Your task to perform on an android device: When is my next meeting? Image 0: 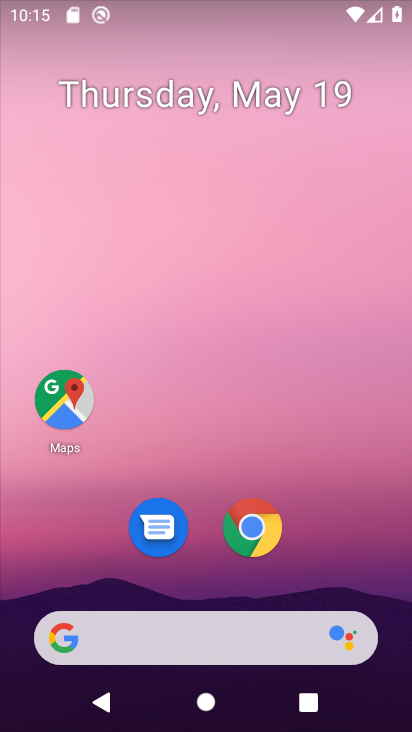
Step 0: drag from (381, 591) to (273, 66)
Your task to perform on an android device: When is my next meeting? Image 1: 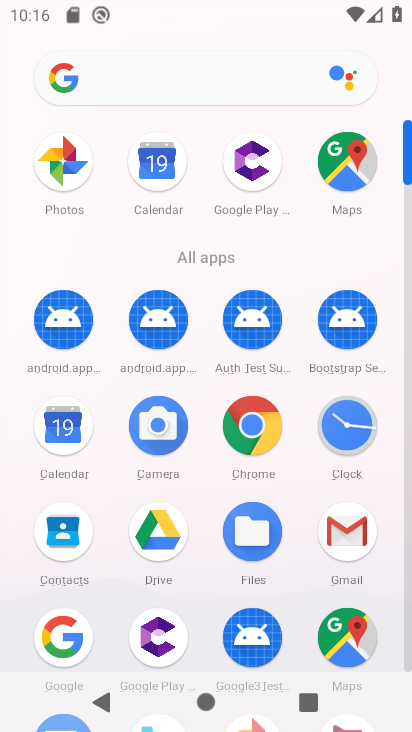
Step 1: click (61, 431)
Your task to perform on an android device: When is my next meeting? Image 2: 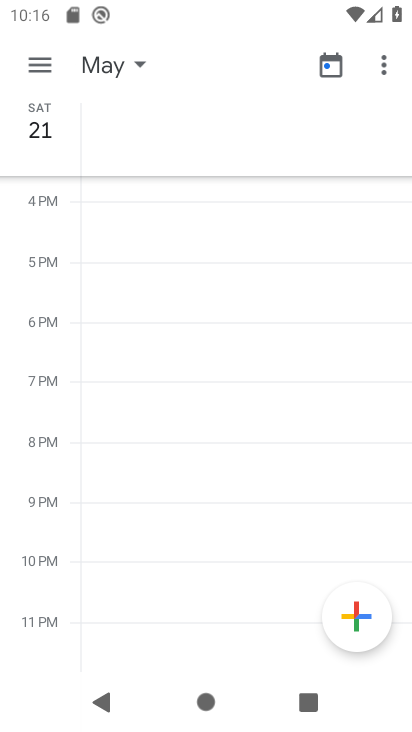
Step 2: click (110, 76)
Your task to perform on an android device: When is my next meeting? Image 3: 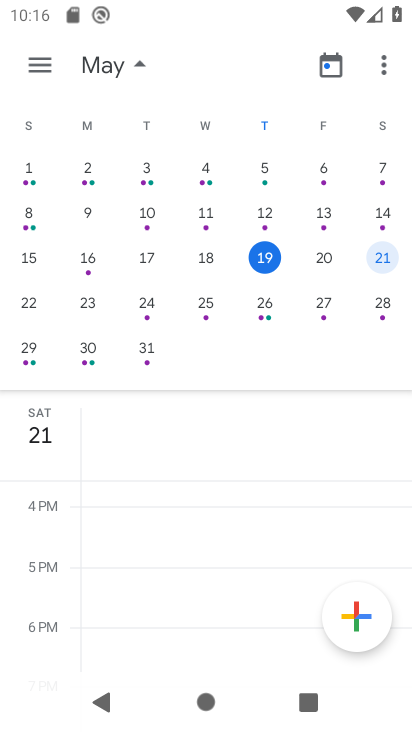
Step 3: click (324, 256)
Your task to perform on an android device: When is my next meeting? Image 4: 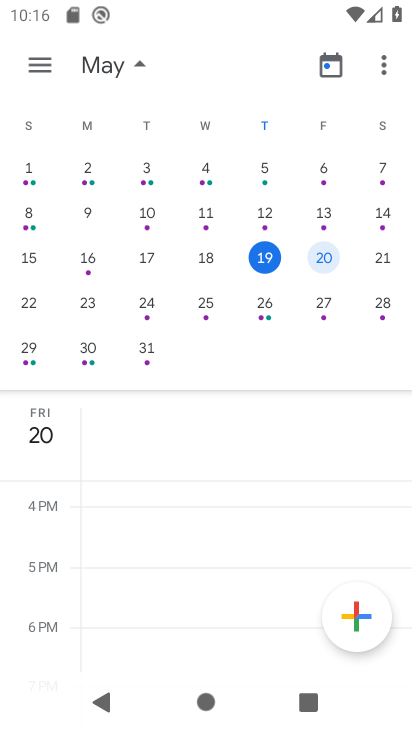
Step 4: click (42, 61)
Your task to perform on an android device: When is my next meeting? Image 5: 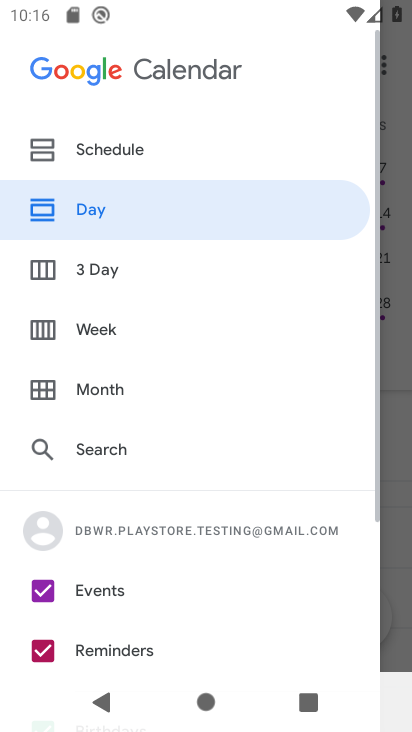
Step 5: click (107, 147)
Your task to perform on an android device: When is my next meeting? Image 6: 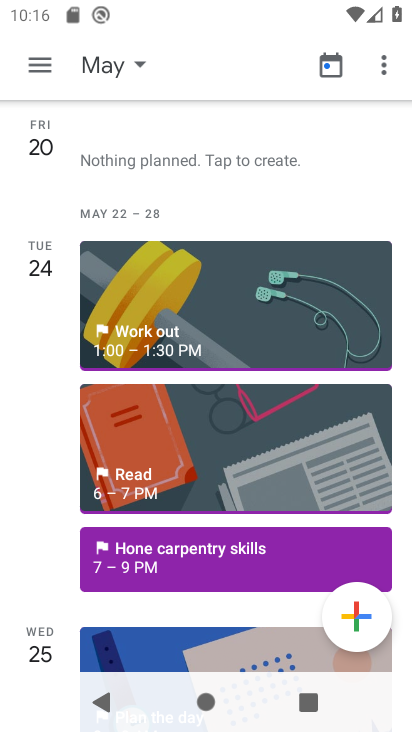
Step 6: task complete